Your task to perform on an android device: Open the phone app and click the voicemail tab. Image 0: 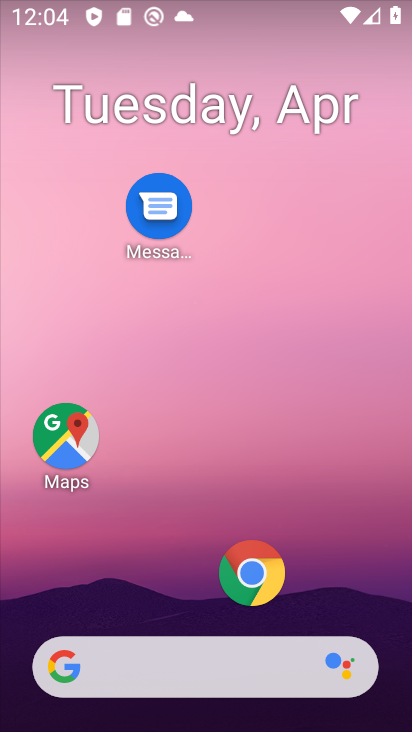
Step 0: drag from (203, 626) to (196, 28)
Your task to perform on an android device: Open the phone app and click the voicemail tab. Image 1: 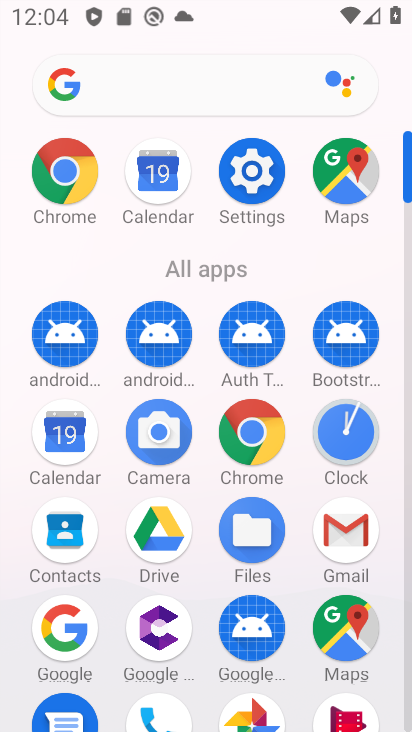
Step 1: click (149, 702)
Your task to perform on an android device: Open the phone app and click the voicemail tab. Image 2: 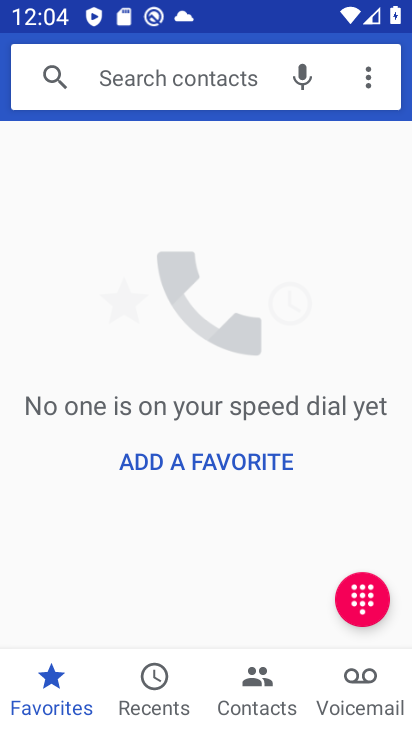
Step 2: click (345, 685)
Your task to perform on an android device: Open the phone app and click the voicemail tab. Image 3: 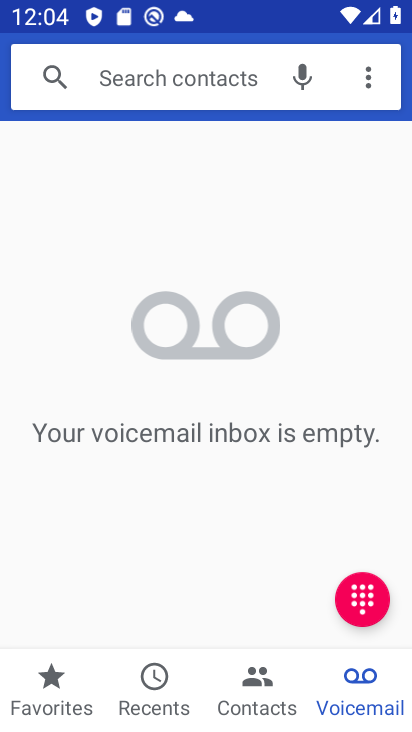
Step 3: task complete